Your task to perform on an android device: install app "Google Play services" Image 0: 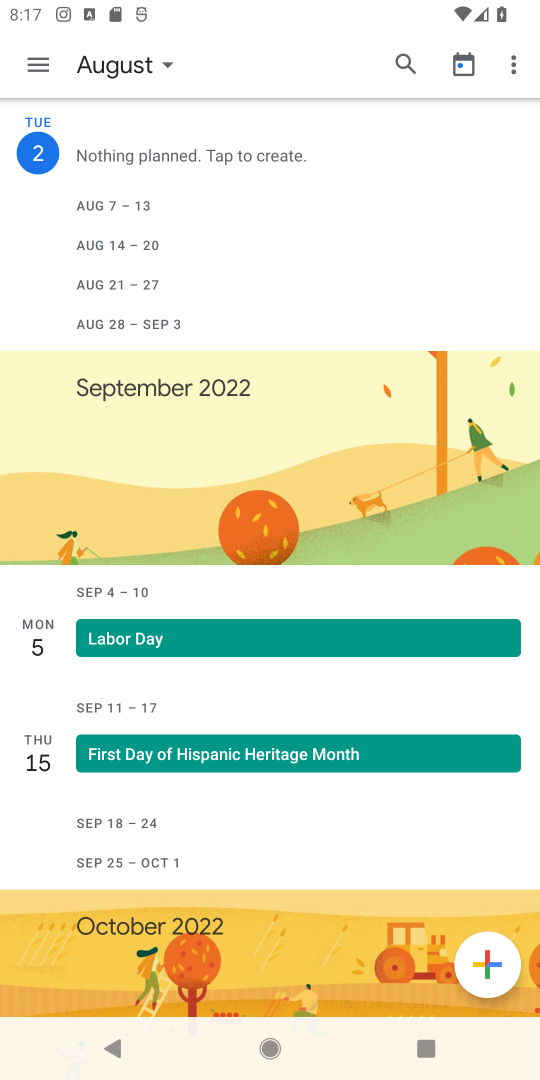
Step 0: press home button
Your task to perform on an android device: install app "Google Play services" Image 1: 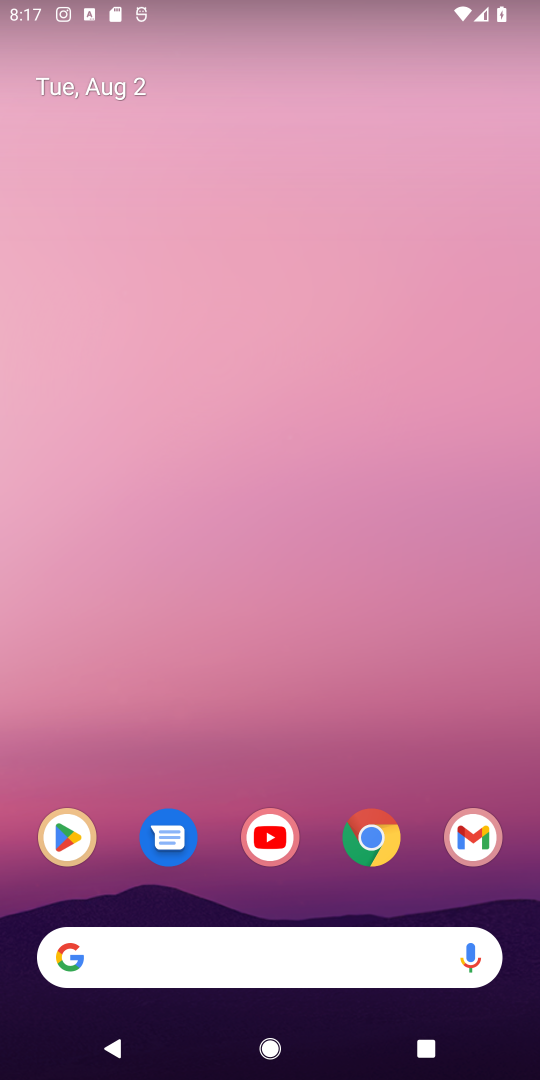
Step 1: click (68, 842)
Your task to perform on an android device: install app "Google Play services" Image 2: 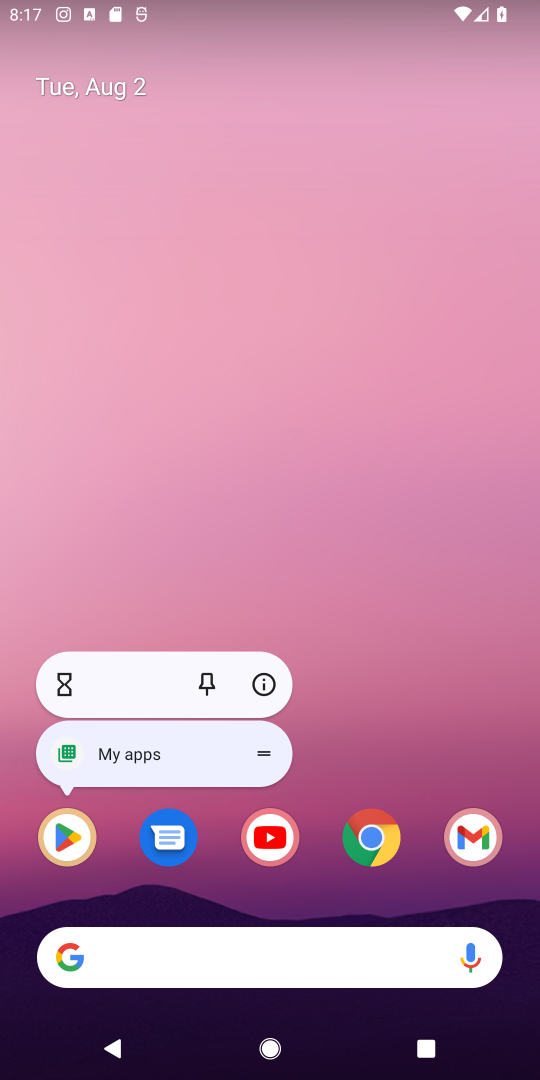
Step 2: click (68, 842)
Your task to perform on an android device: install app "Google Play services" Image 3: 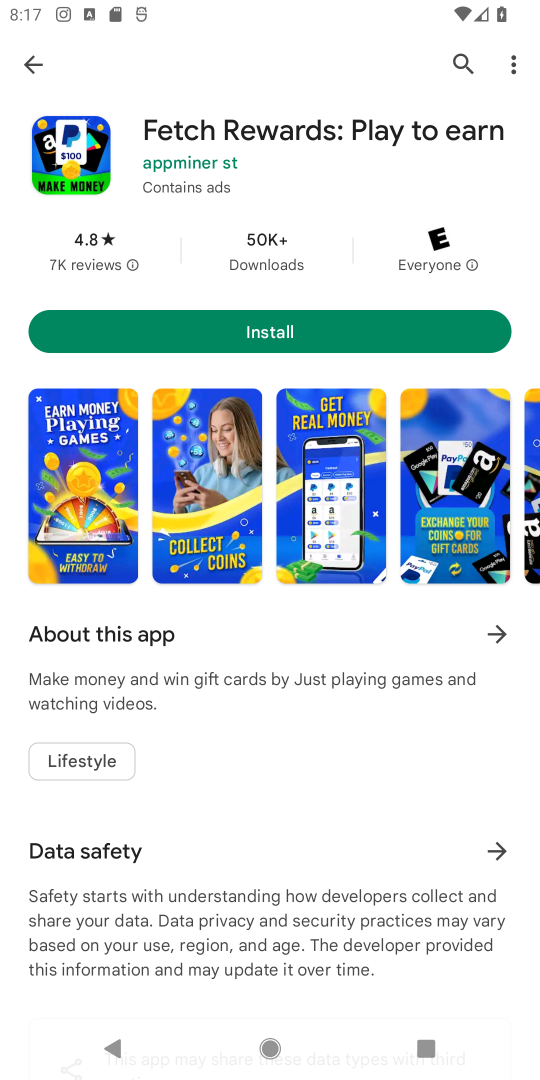
Step 3: click (466, 76)
Your task to perform on an android device: install app "Google Play services" Image 4: 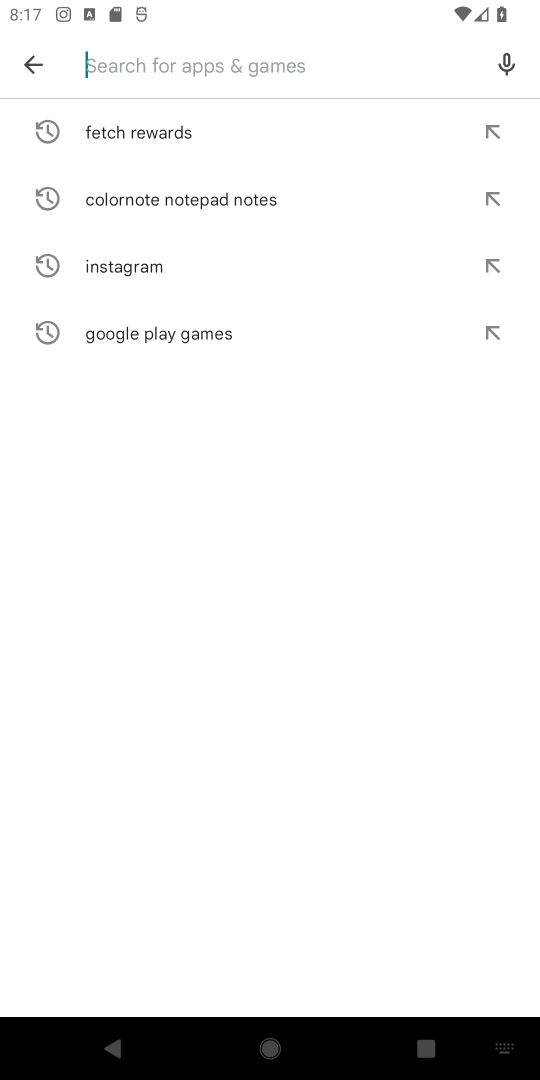
Step 4: type "Google Play services"
Your task to perform on an android device: install app "Google Play services" Image 5: 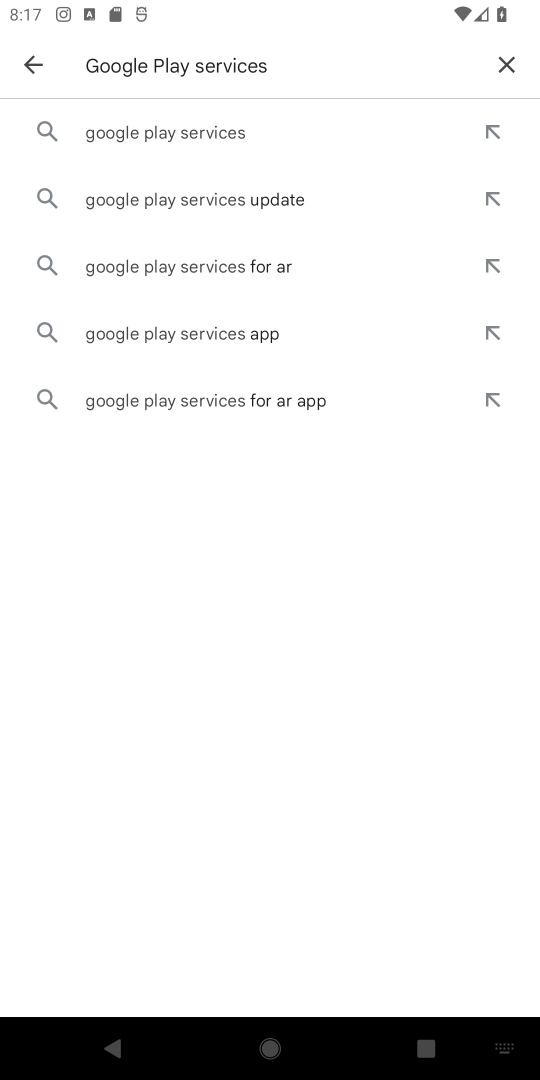
Step 5: click (156, 140)
Your task to perform on an android device: install app "Google Play services" Image 6: 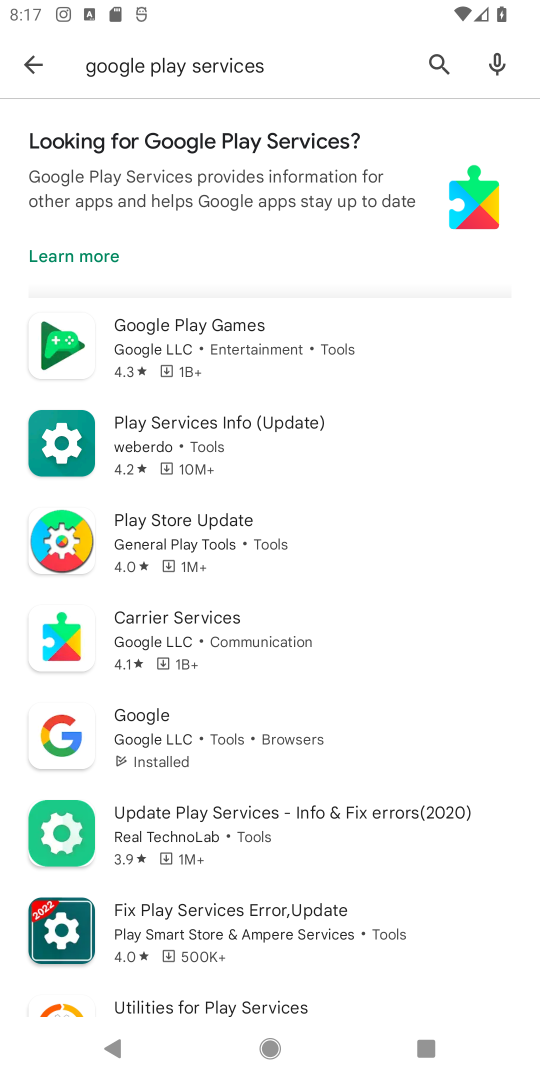
Step 6: drag from (212, 753) to (218, 439)
Your task to perform on an android device: install app "Google Play services" Image 7: 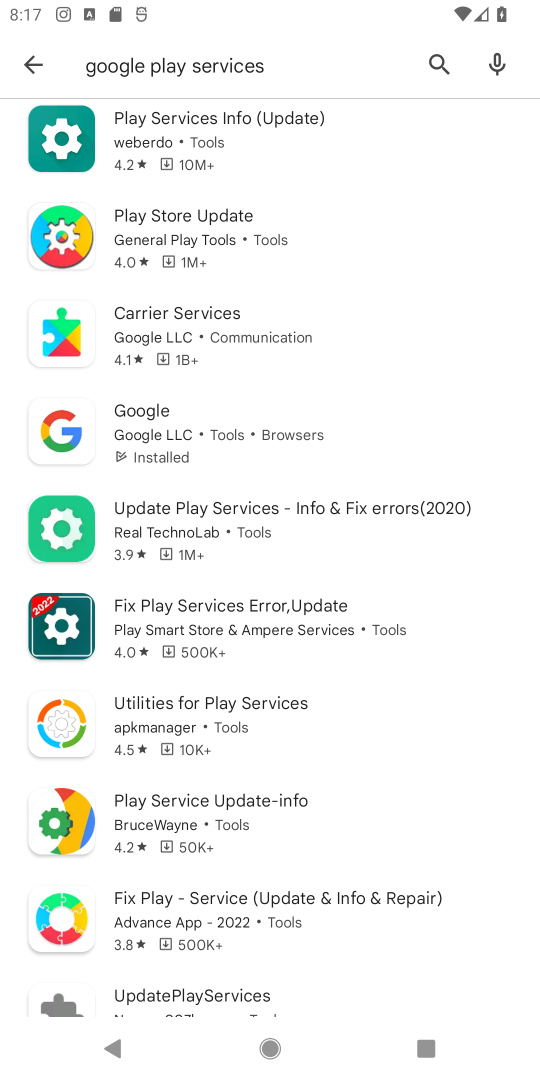
Step 7: drag from (203, 817) to (237, 542)
Your task to perform on an android device: install app "Google Play services" Image 8: 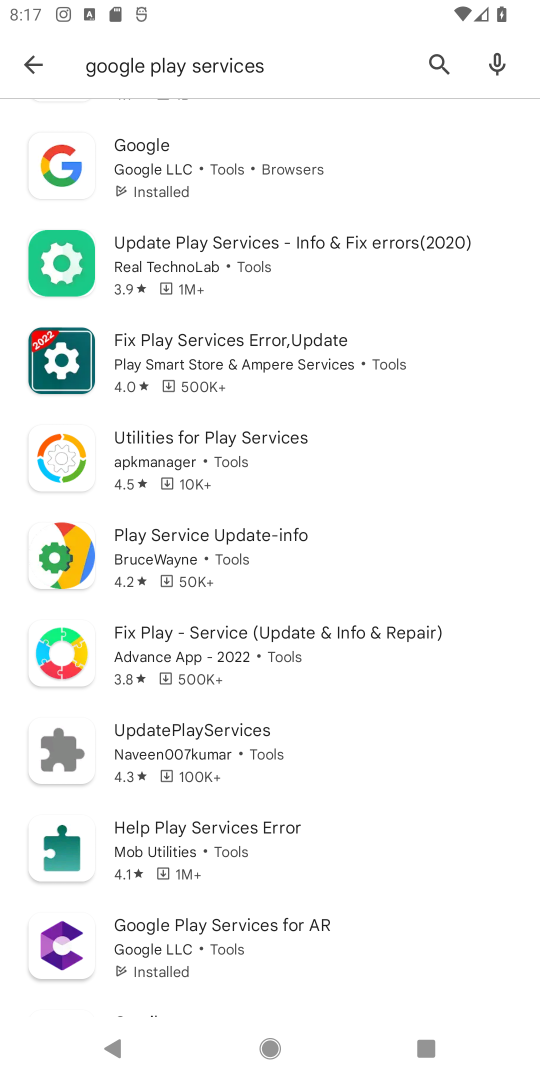
Step 8: click (150, 957)
Your task to perform on an android device: install app "Google Play services" Image 9: 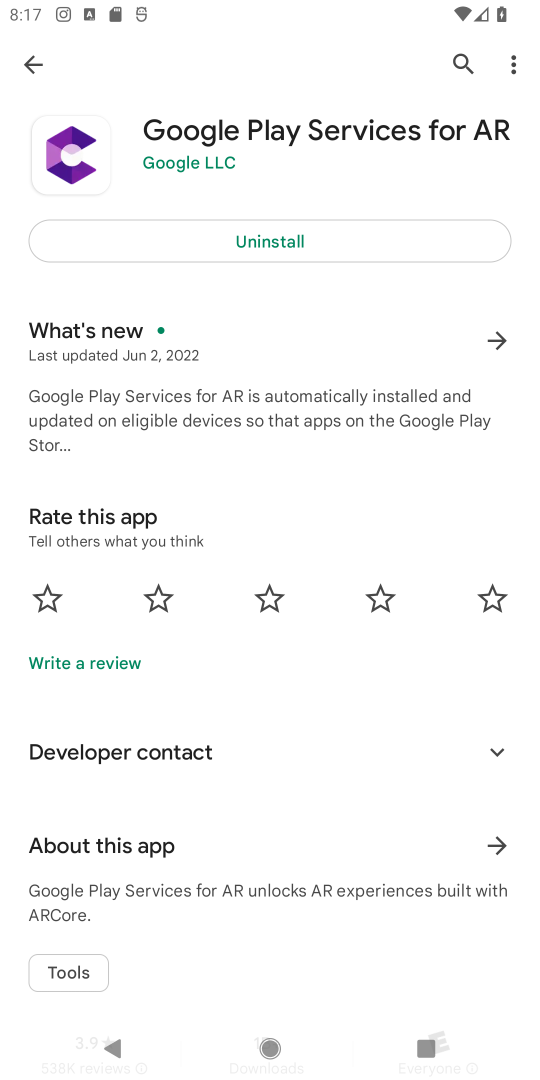
Step 9: click (220, 143)
Your task to perform on an android device: install app "Google Play services" Image 10: 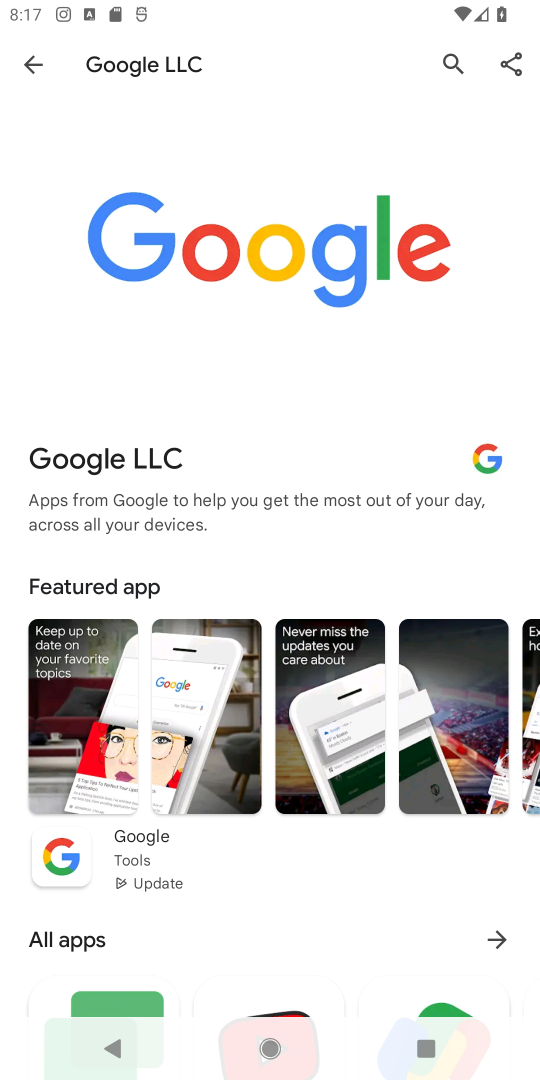
Step 10: click (35, 66)
Your task to perform on an android device: install app "Google Play services" Image 11: 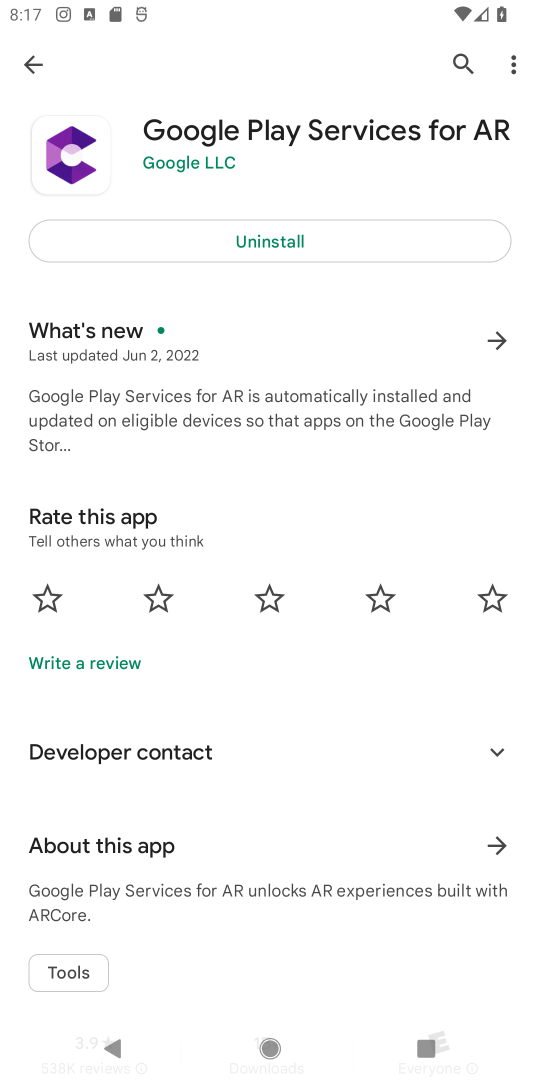
Step 11: task complete